Your task to perform on an android device: toggle priority inbox in the gmail app Image 0: 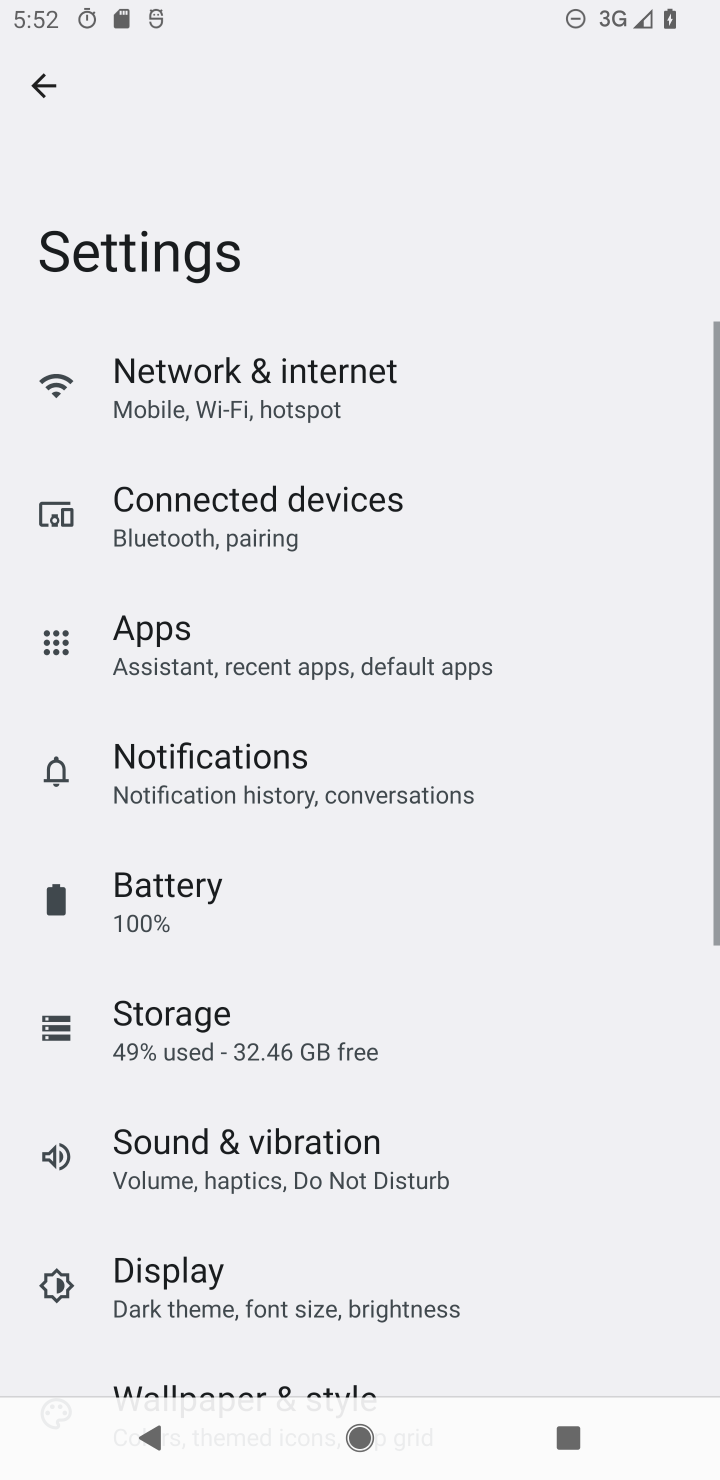
Step 0: press home button
Your task to perform on an android device: toggle priority inbox in the gmail app Image 1: 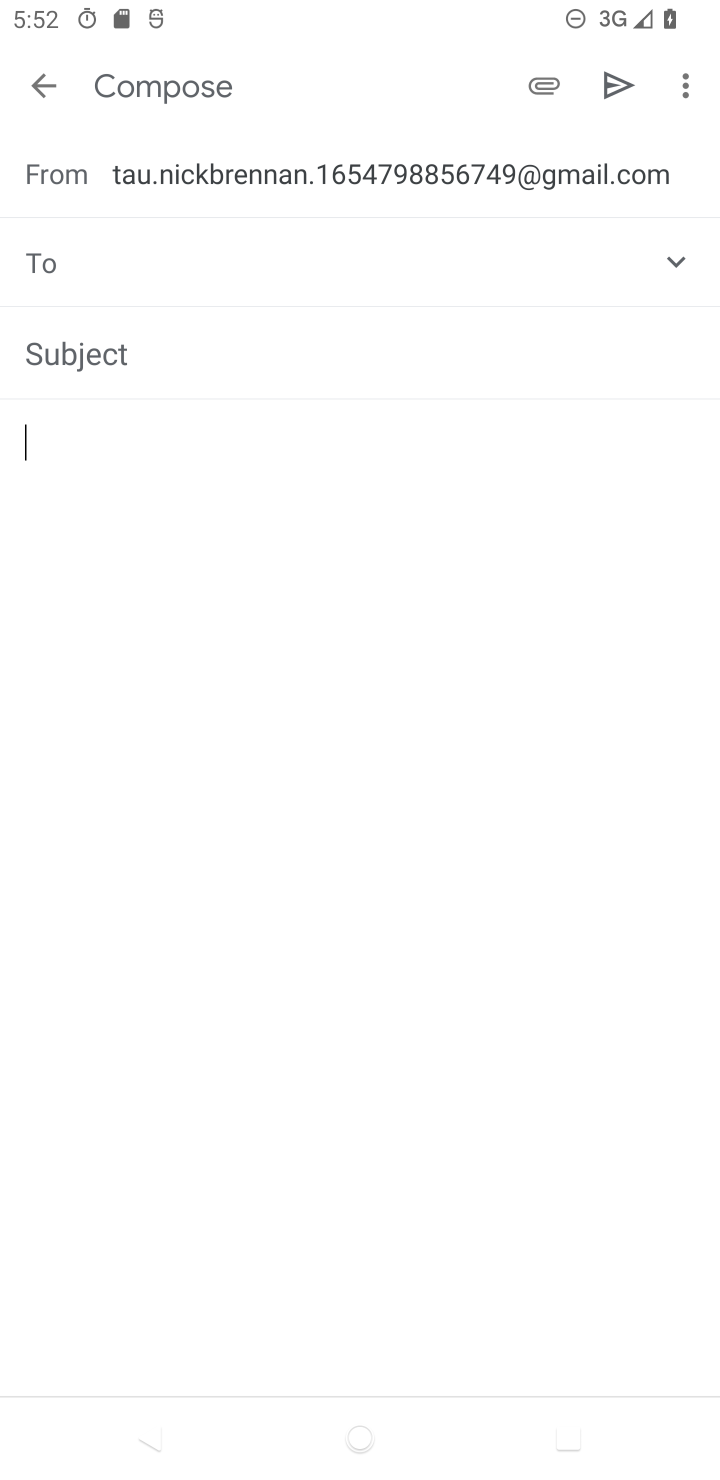
Step 1: click (570, 296)
Your task to perform on an android device: toggle priority inbox in the gmail app Image 2: 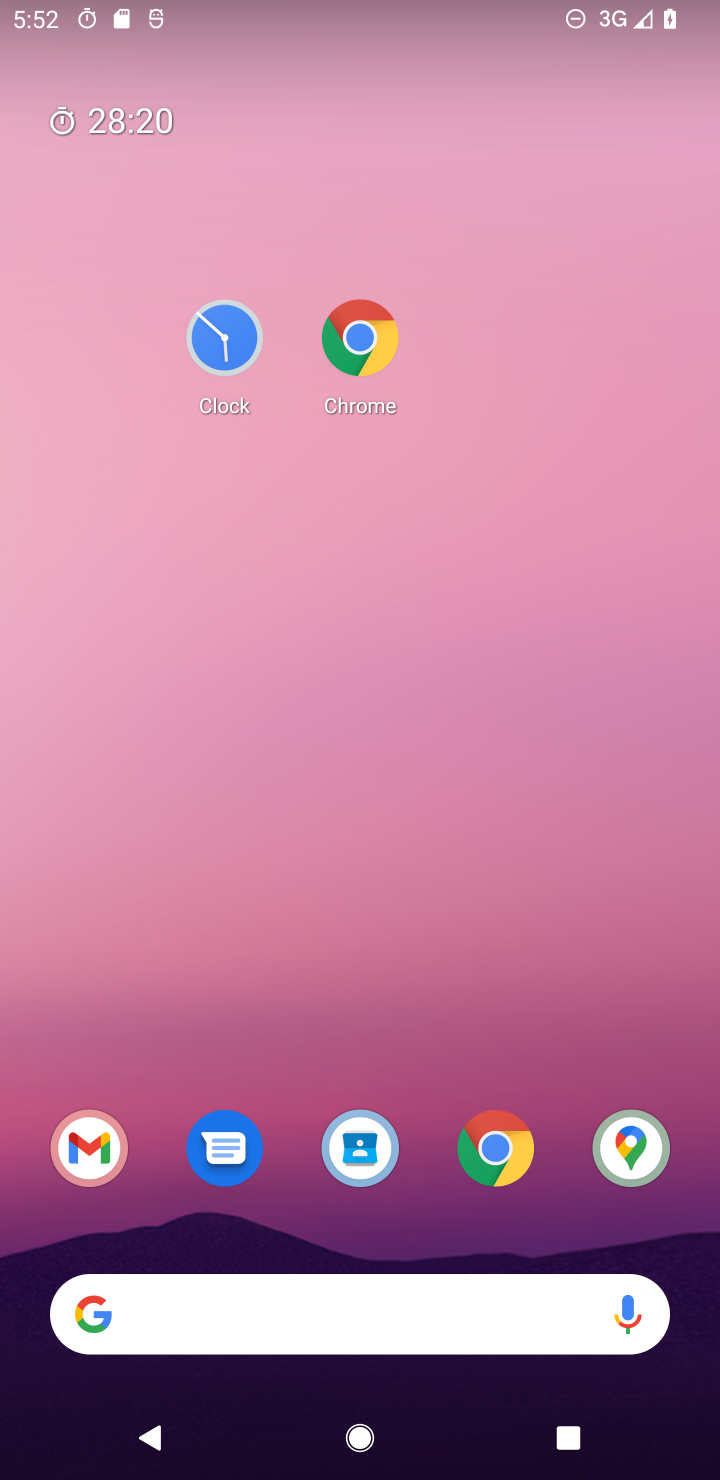
Step 2: drag from (424, 1108) to (709, 88)
Your task to perform on an android device: toggle priority inbox in the gmail app Image 3: 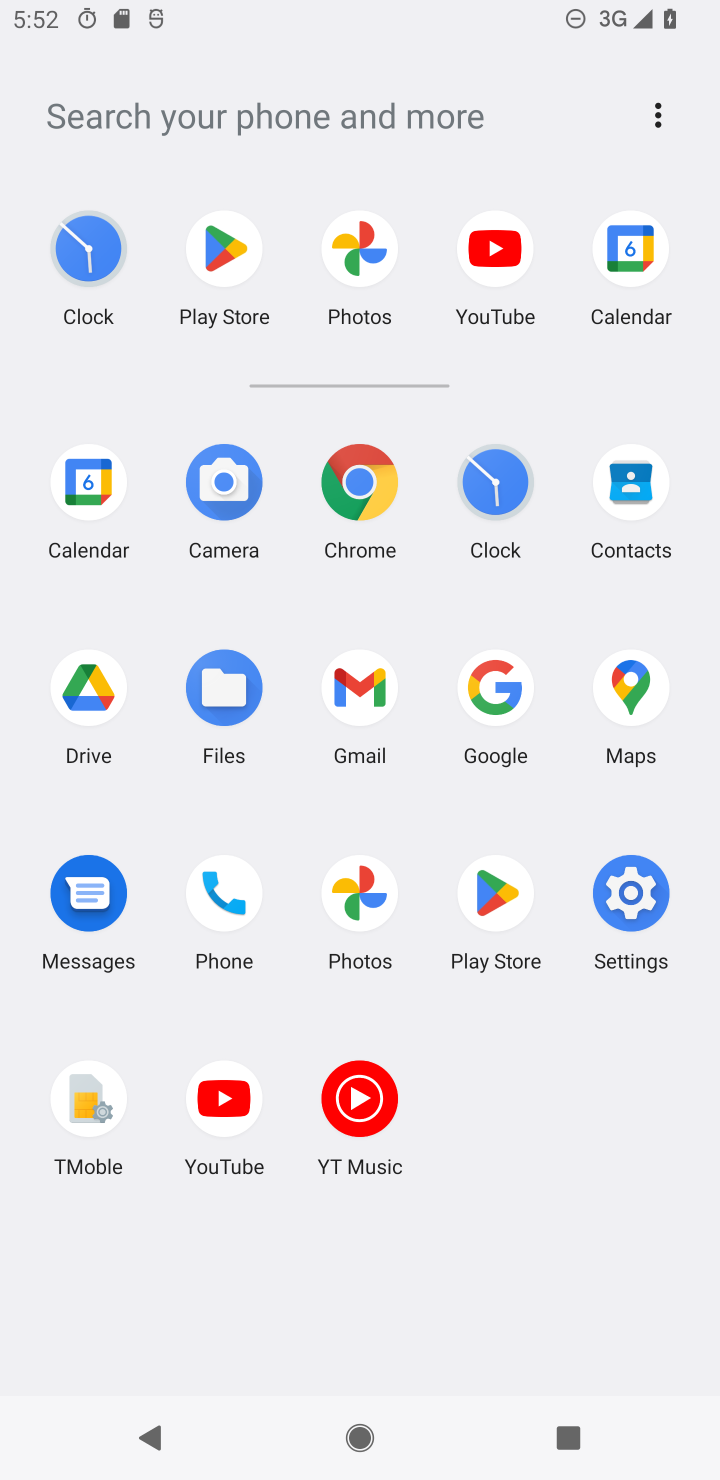
Step 3: click (366, 691)
Your task to perform on an android device: toggle priority inbox in the gmail app Image 4: 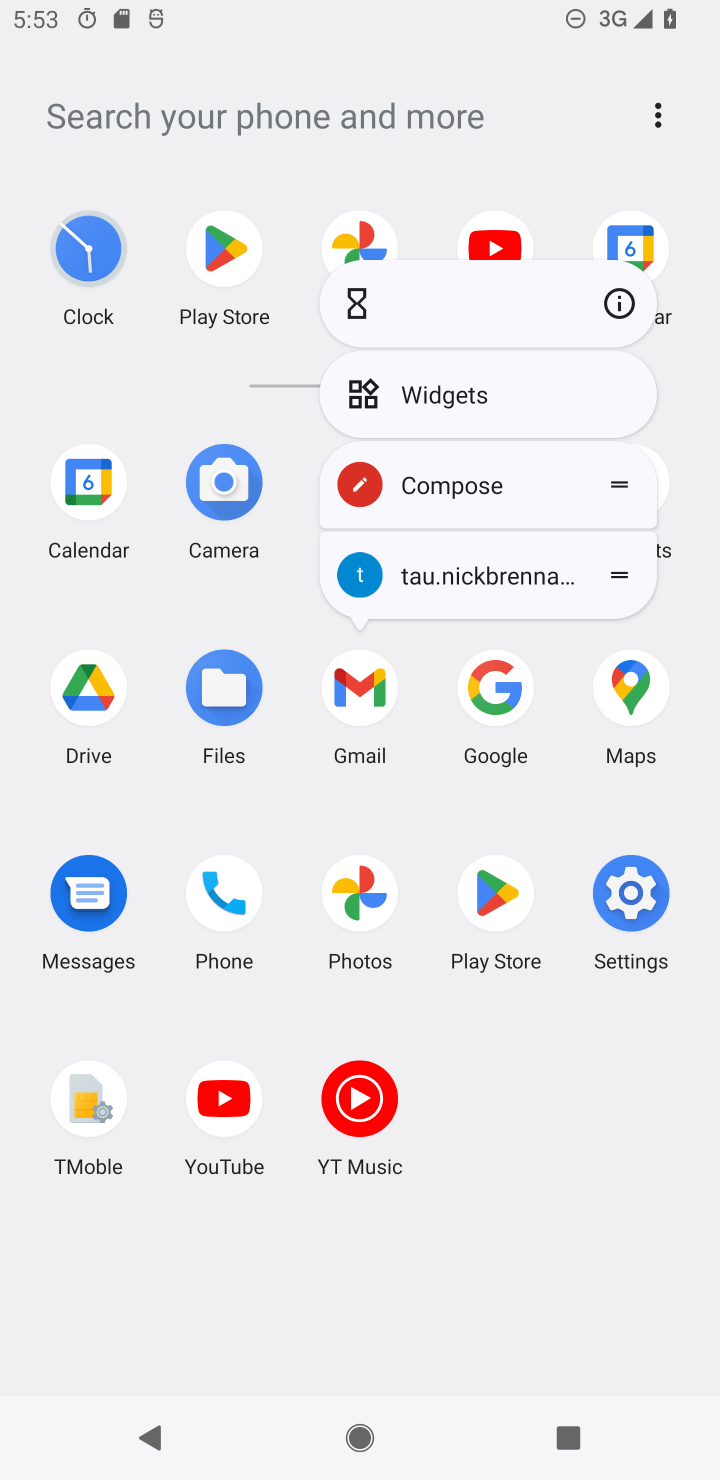
Step 4: click (620, 310)
Your task to perform on an android device: toggle priority inbox in the gmail app Image 5: 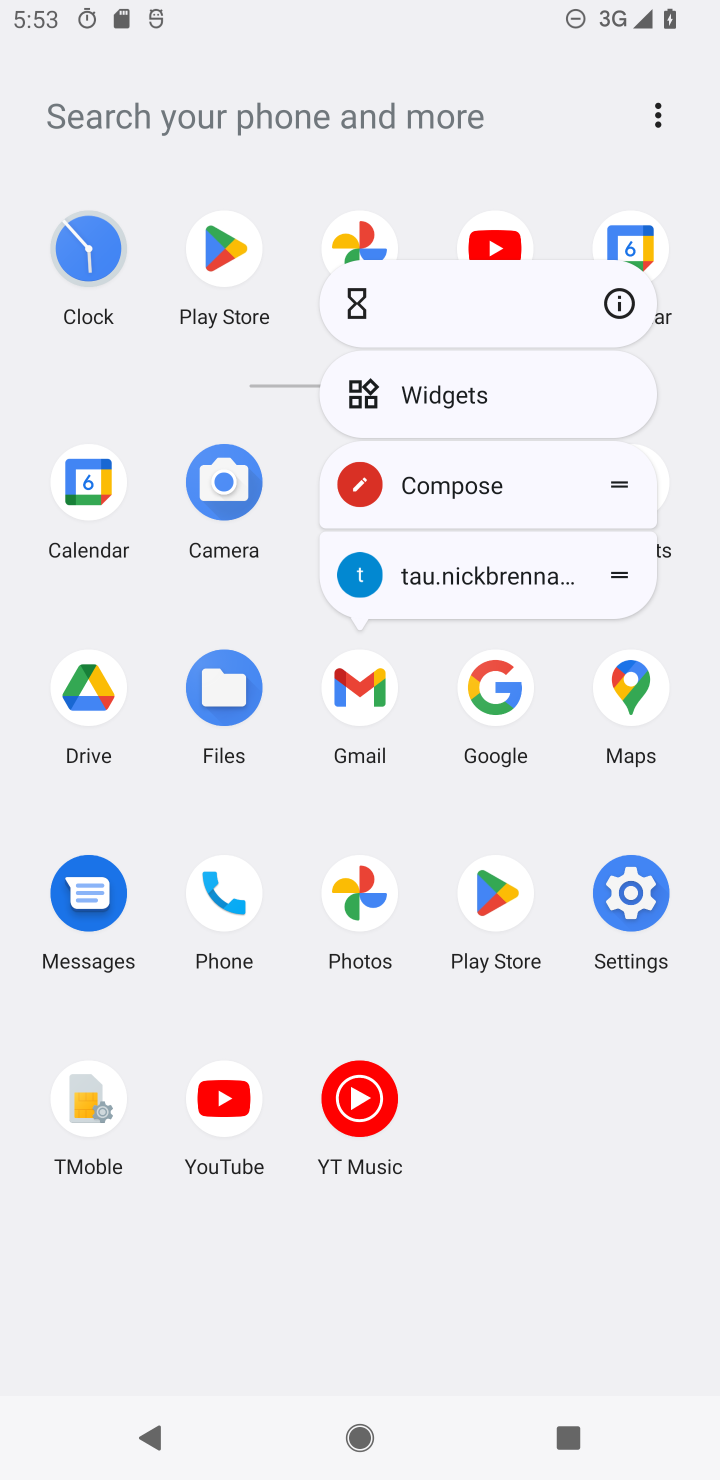
Step 5: click (611, 298)
Your task to perform on an android device: toggle priority inbox in the gmail app Image 6: 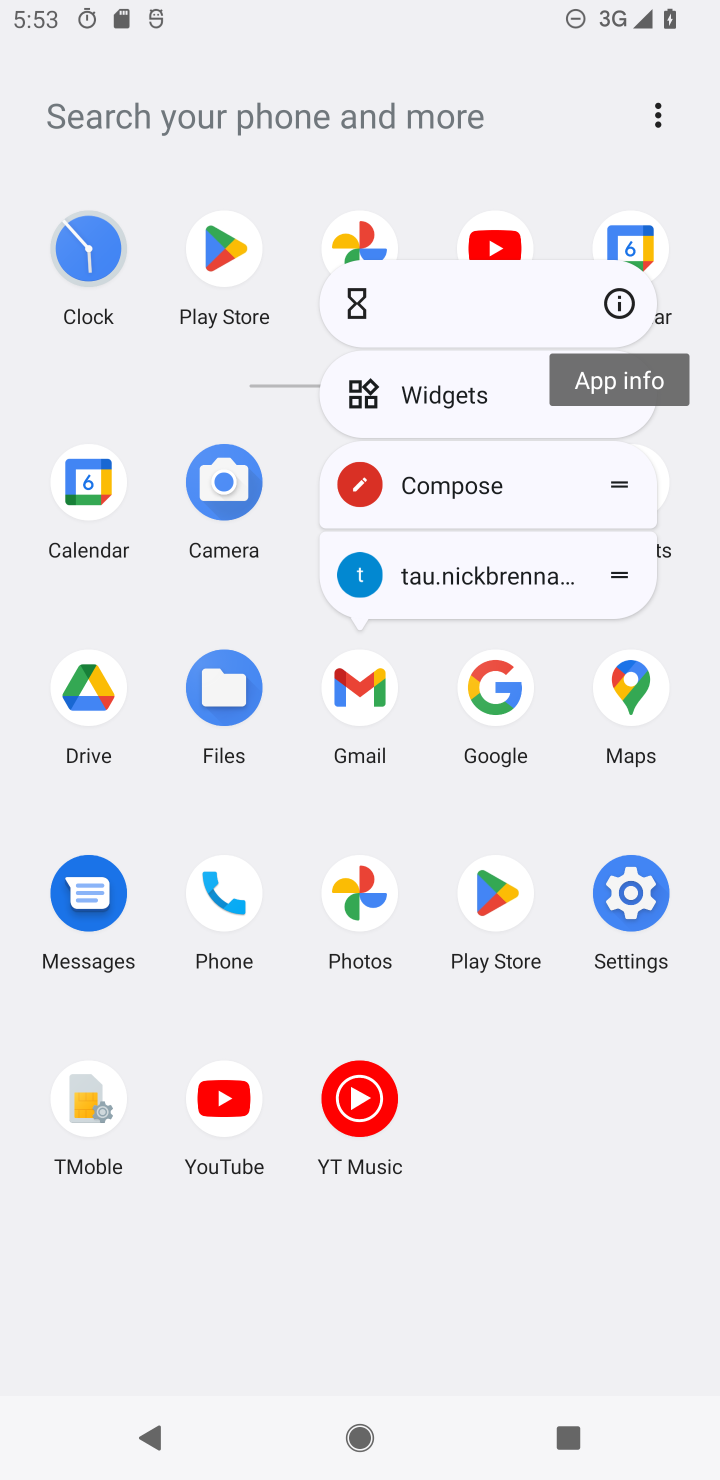
Step 6: click (615, 298)
Your task to perform on an android device: toggle priority inbox in the gmail app Image 7: 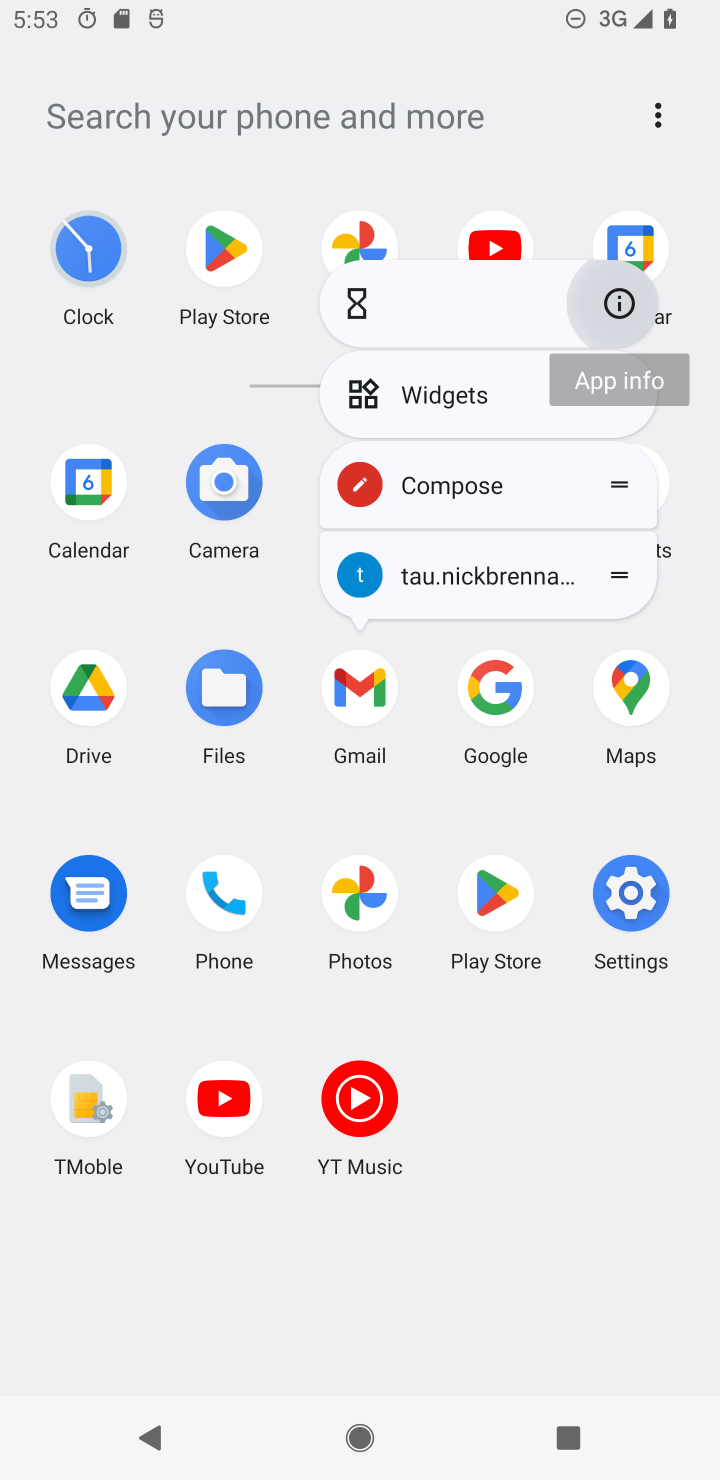
Step 7: click (357, 690)
Your task to perform on an android device: toggle priority inbox in the gmail app Image 8: 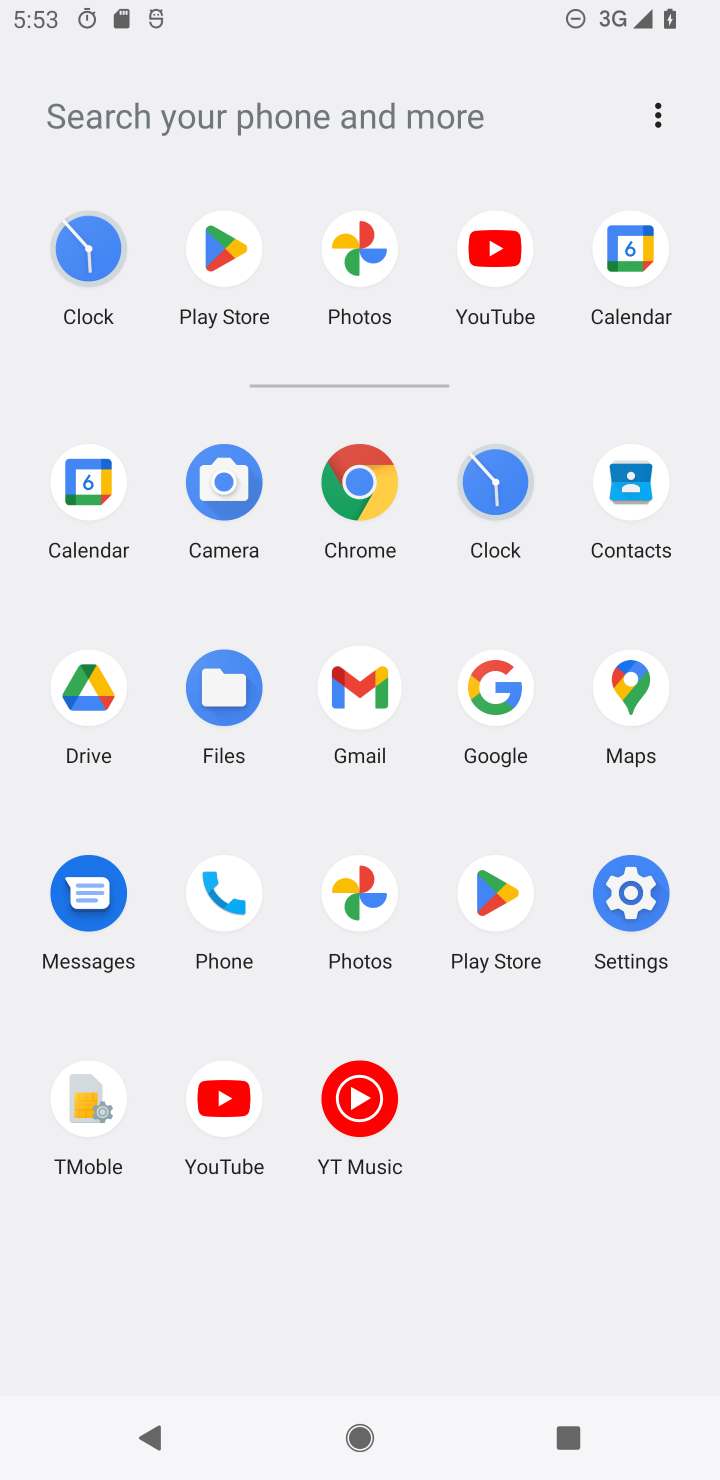
Step 8: click (355, 688)
Your task to perform on an android device: toggle priority inbox in the gmail app Image 9: 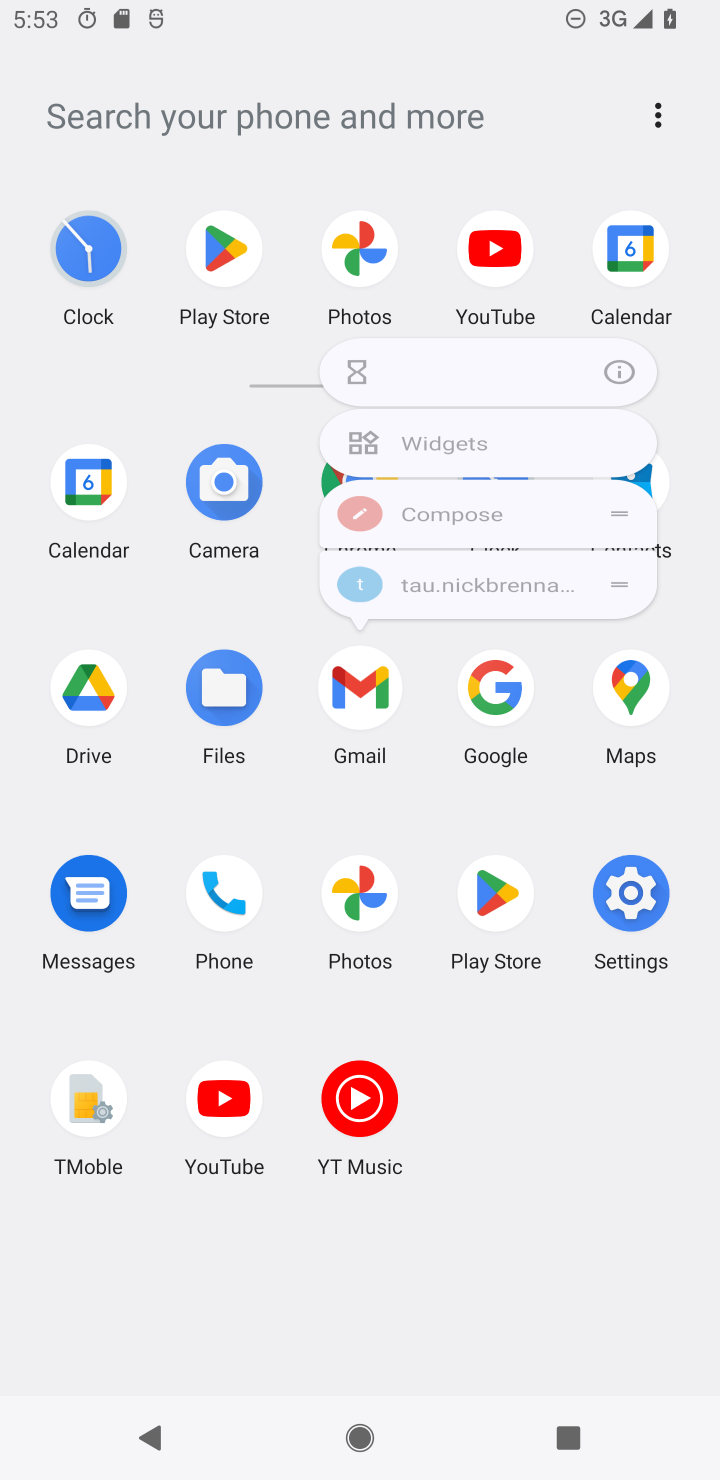
Step 9: click (352, 684)
Your task to perform on an android device: toggle priority inbox in the gmail app Image 10: 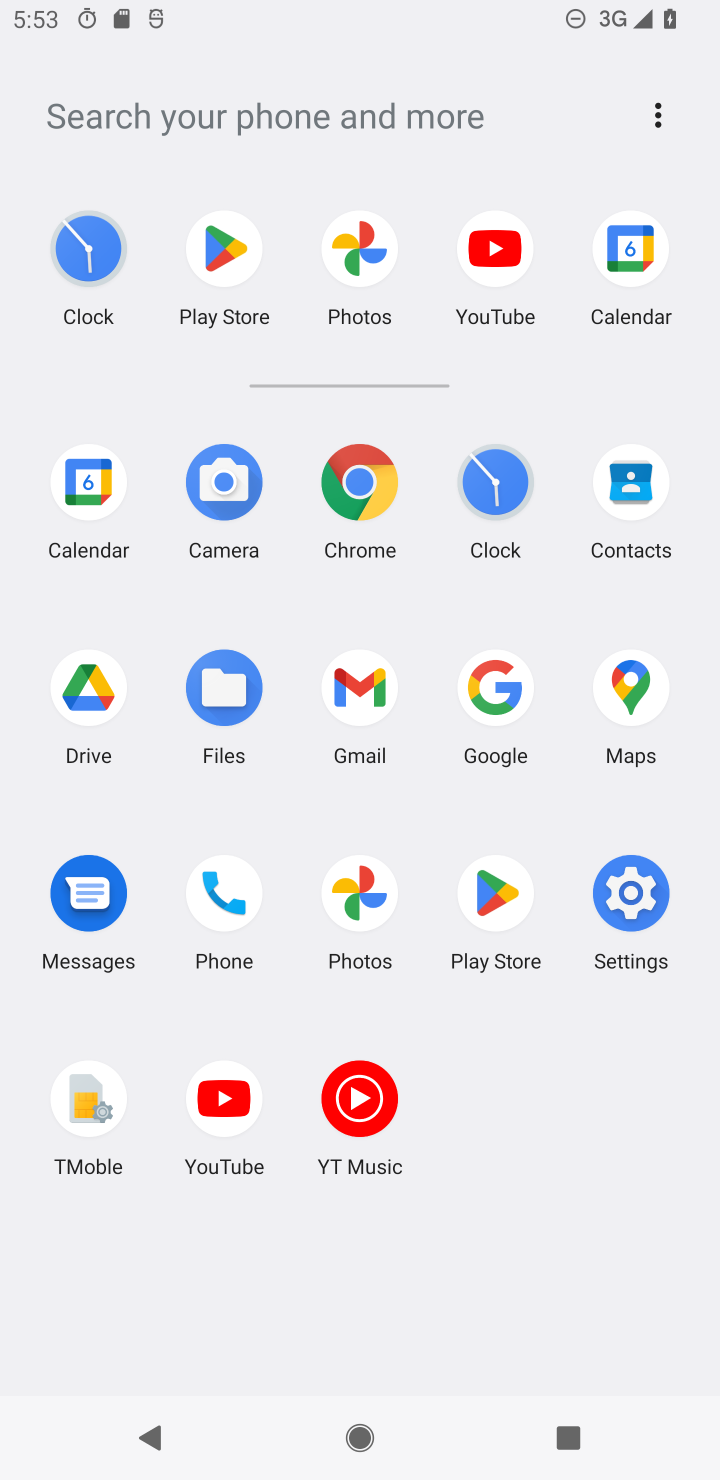
Step 10: click (352, 684)
Your task to perform on an android device: toggle priority inbox in the gmail app Image 11: 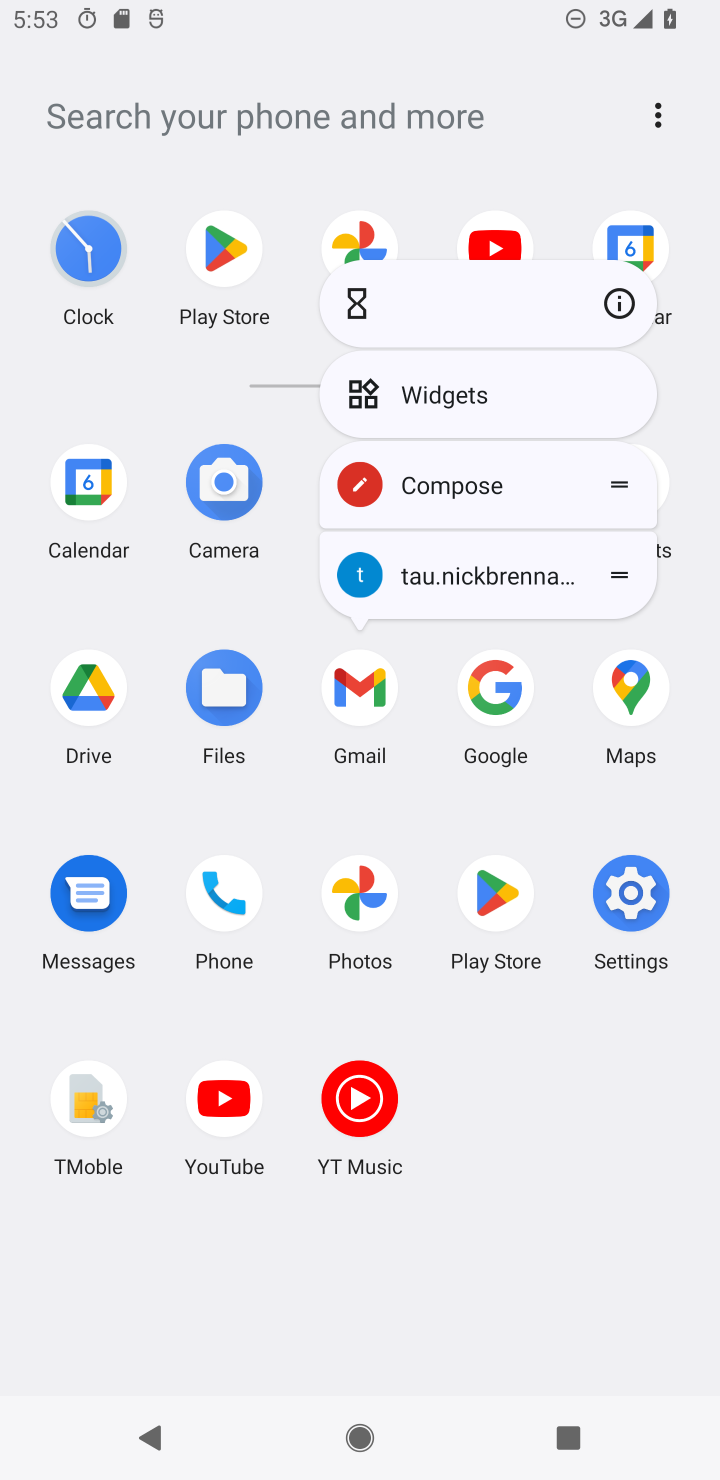
Step 11: click (355, 690)
Your task to perform on an android device: toggle priority inbox in the gmail app Image 12: 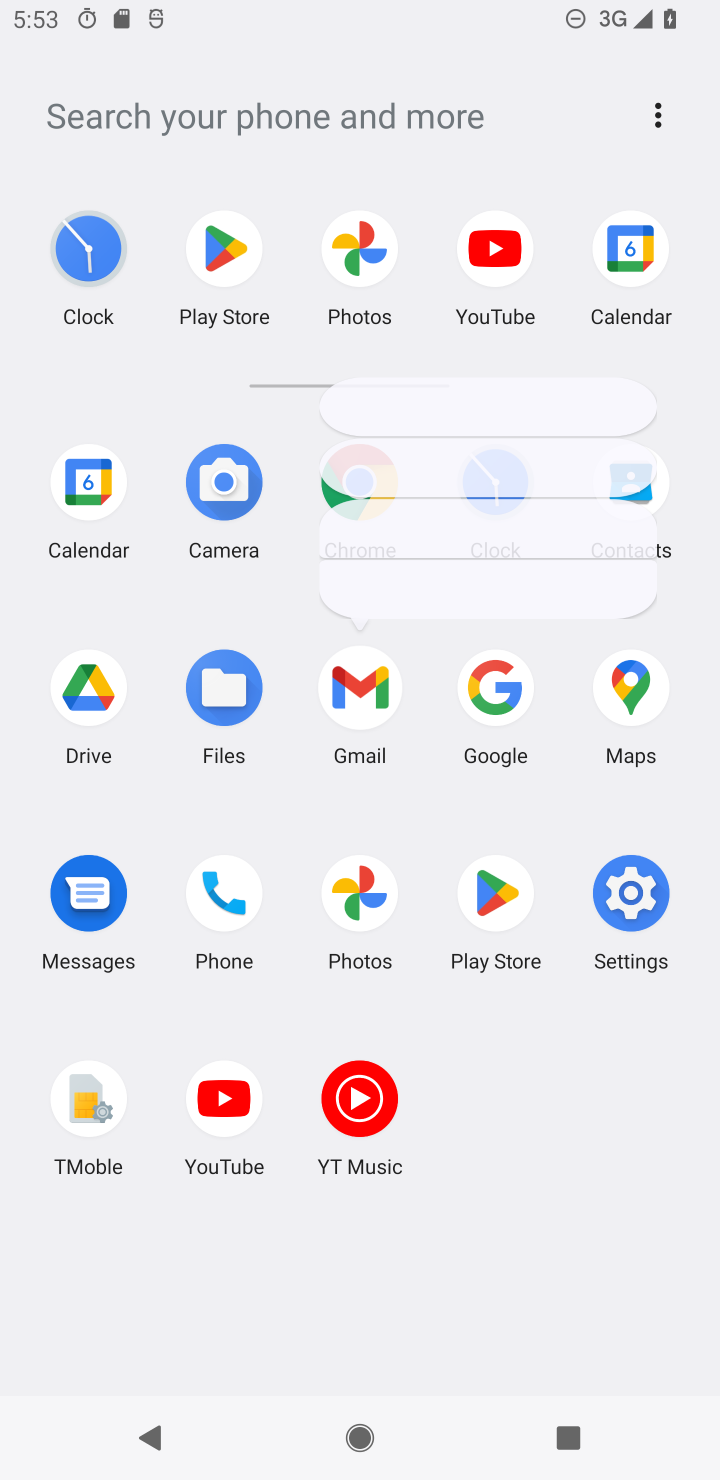
Step 12: click (362, 683)
Your task to perform on an android device: toggle priority inbox in the gmail app Image 13: 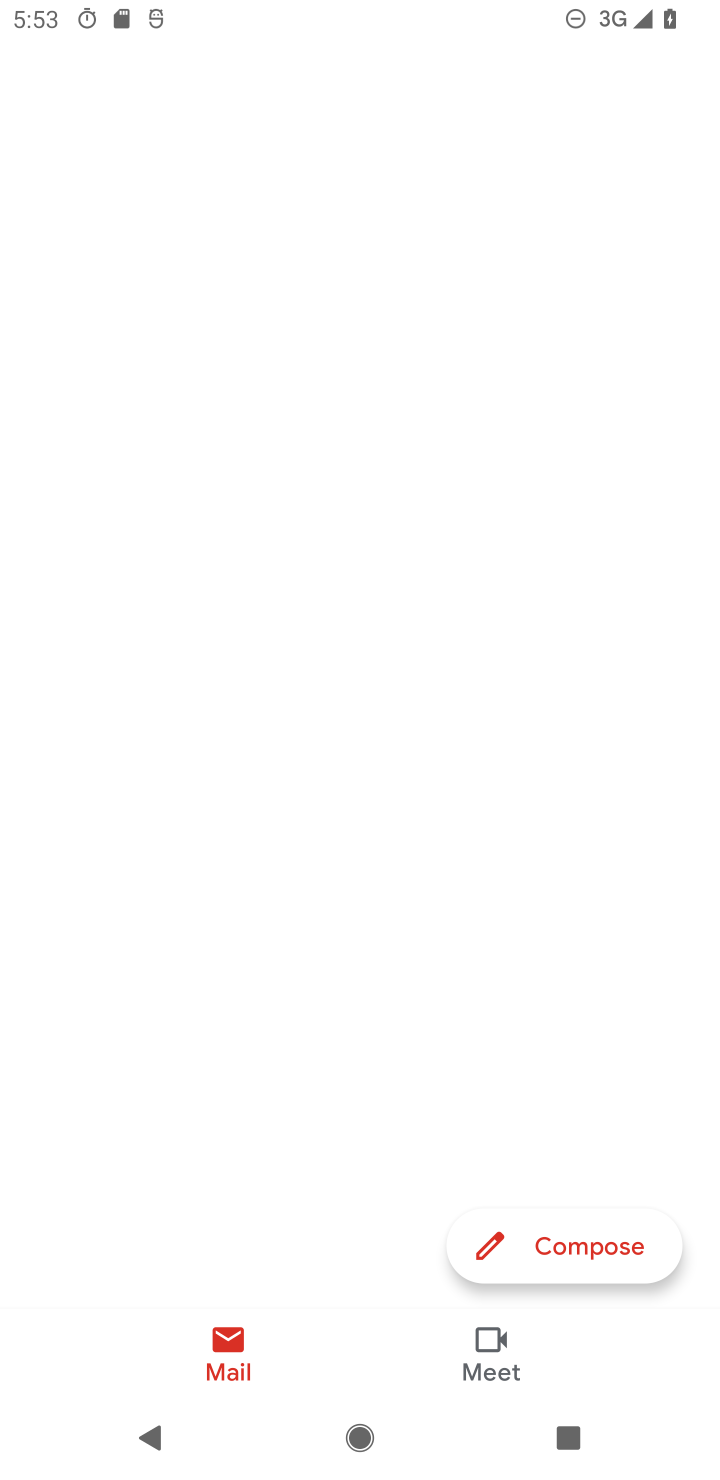
Step 13: click (358, 675)
Your task to perform on an android device: toggle priority inbox in the gmail app Image 14: 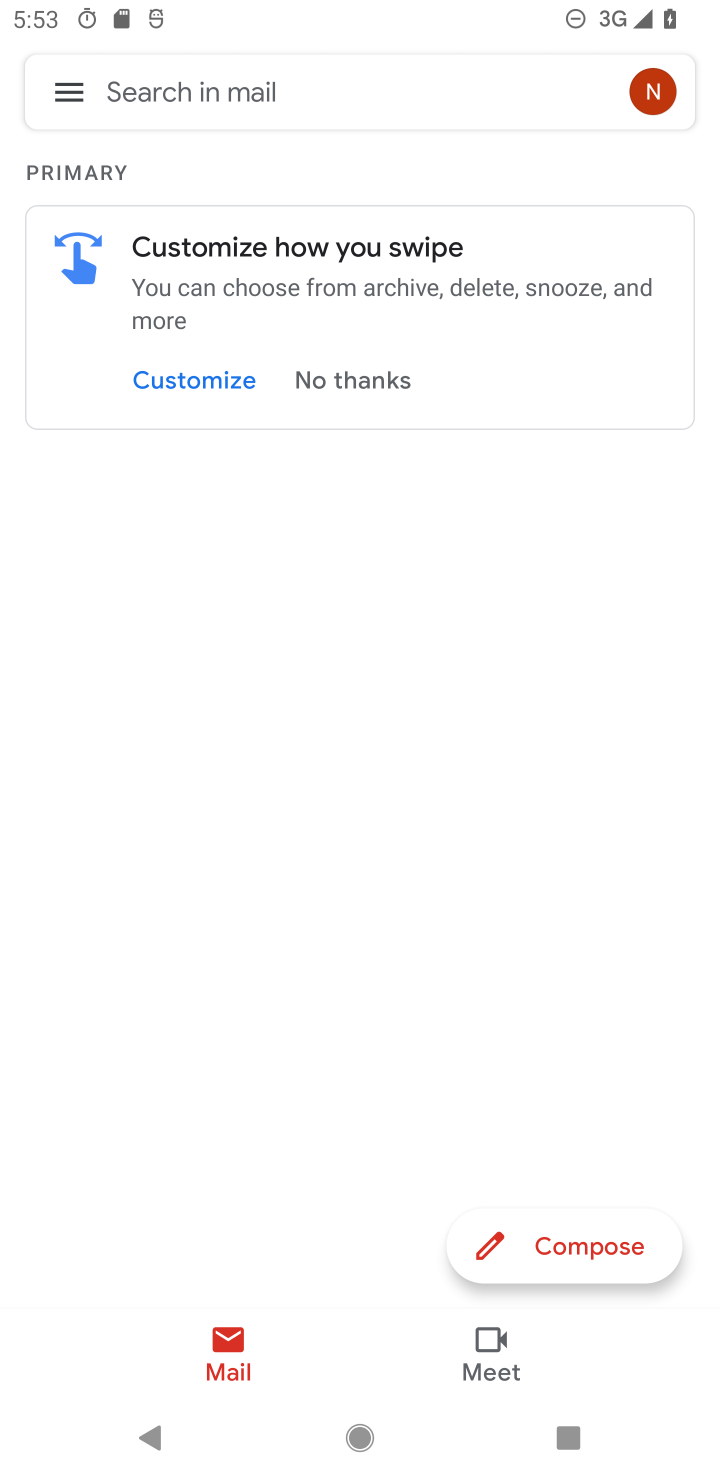
Step 14: drag from (443, 540) to (354, 1115)
Your task to perform on an android device: toggle priority inbox in the gmail app Image 15: 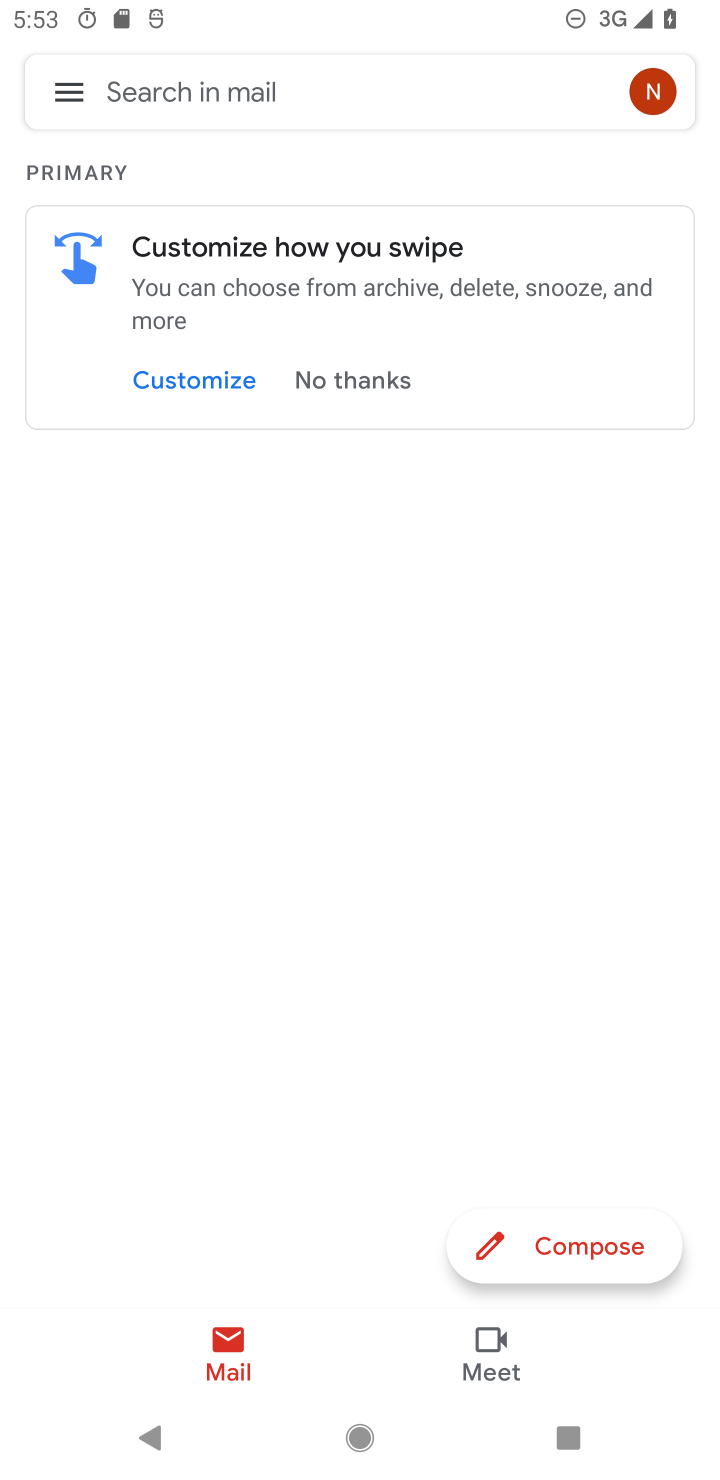
Step 15: click (75, 101)
Your task to perform on an android device: toggle priority inbox in the gmail app Image 16: 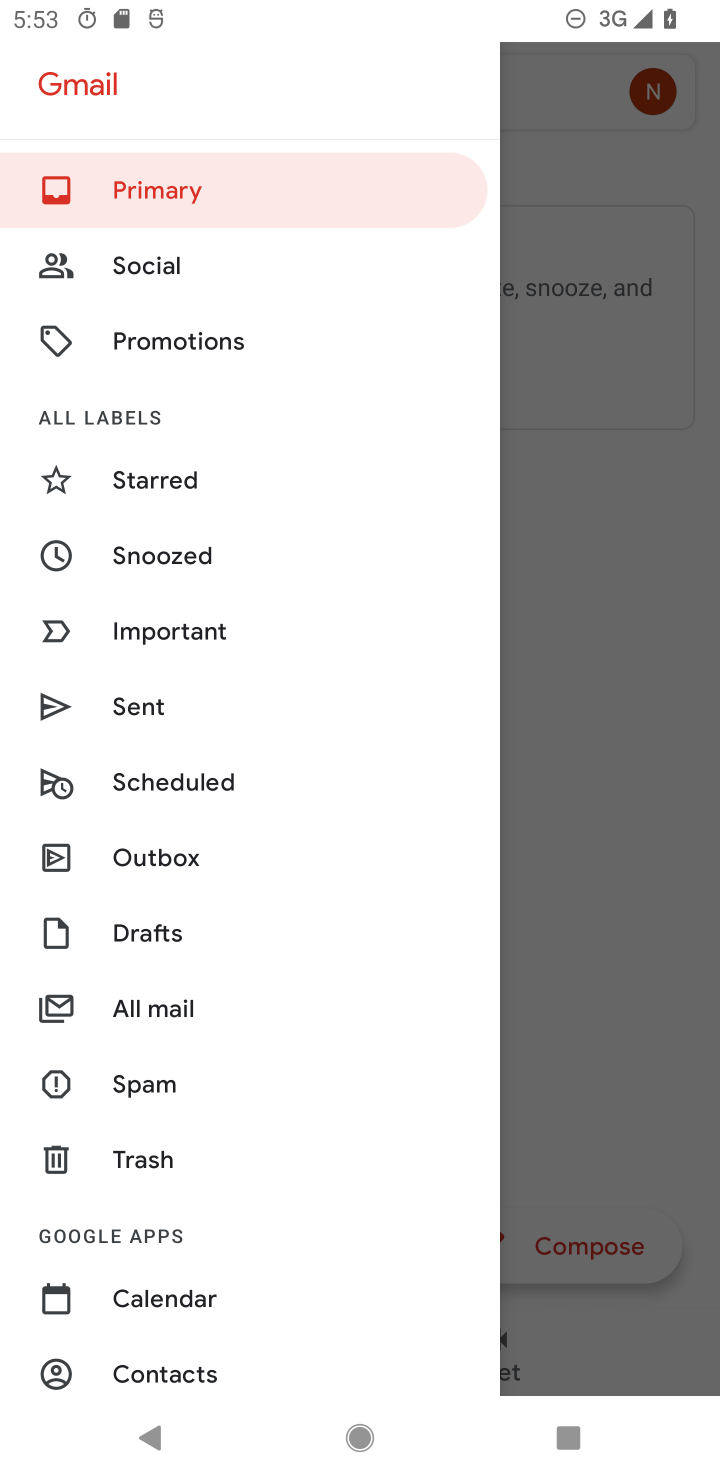
Step 16: drag from (150, 1226) to (228, 288)
Your task to perform on an android device: toggle priority inbox in the gmail app Image 17: 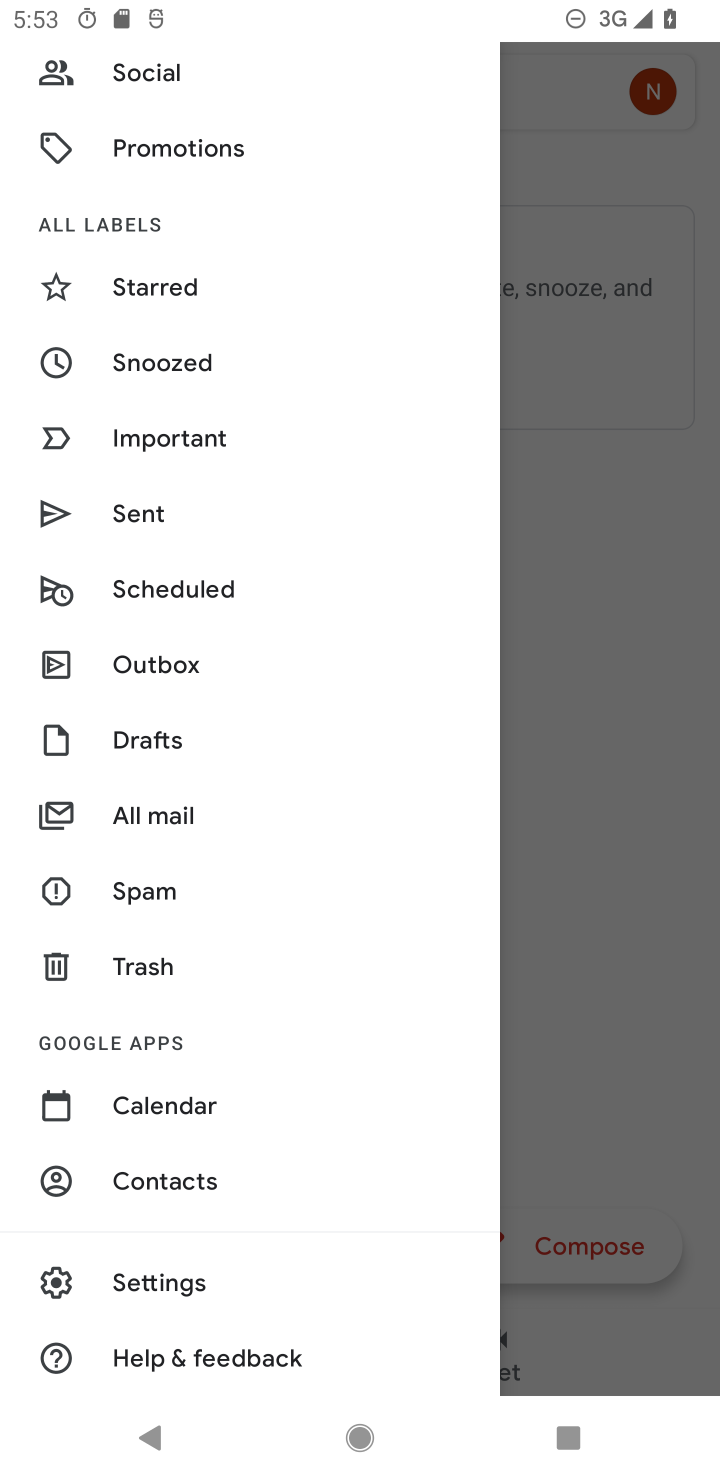
Step 17: click (178, 1290)
Your task to perform on an android device: toggle priority inbox in the gmail app Image 18: 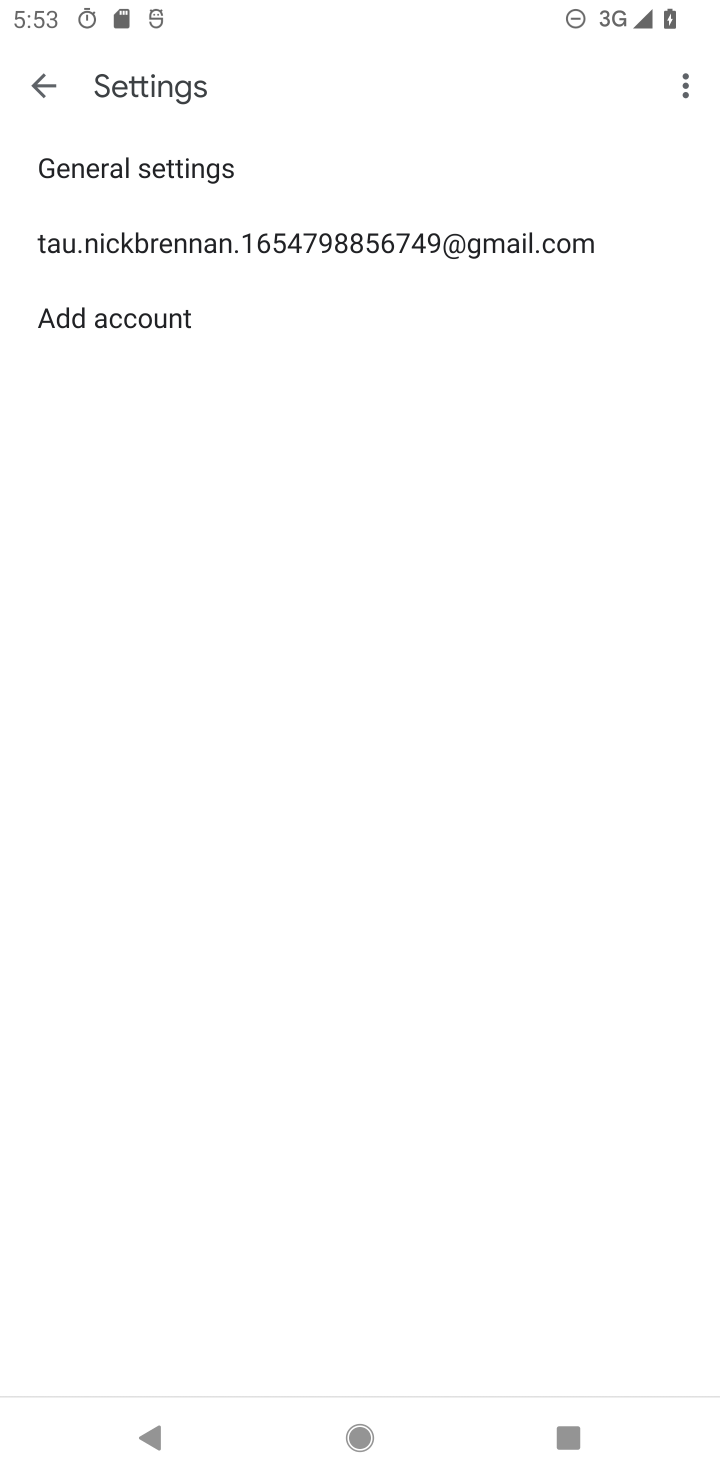
Step 18: click (356, 230)
Your task to perform on an android device: toggle priority inbox in the gmail app Image 19: 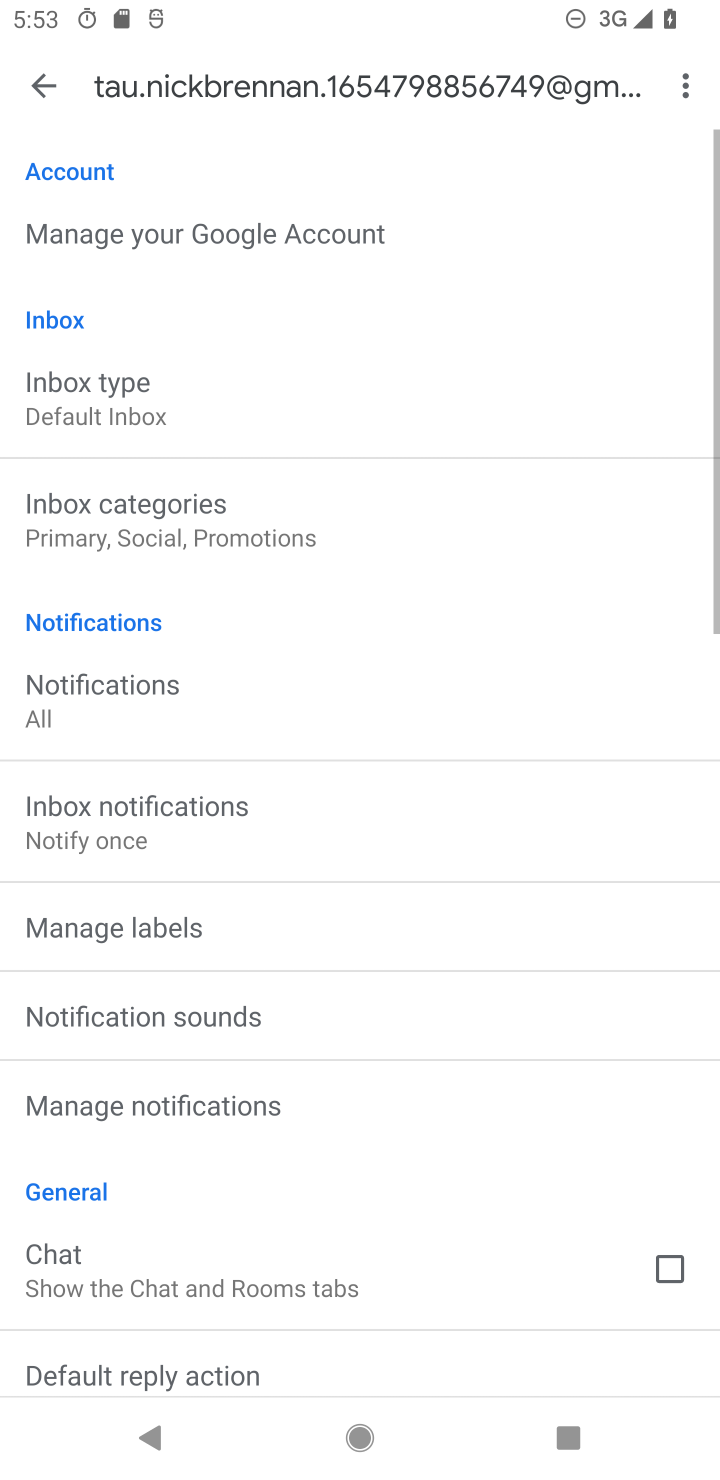
Step 19: drag from (342, 734) to (295, 152)
Your task to perform on an android device: toggle priority inbox in the gmail app Image 20: 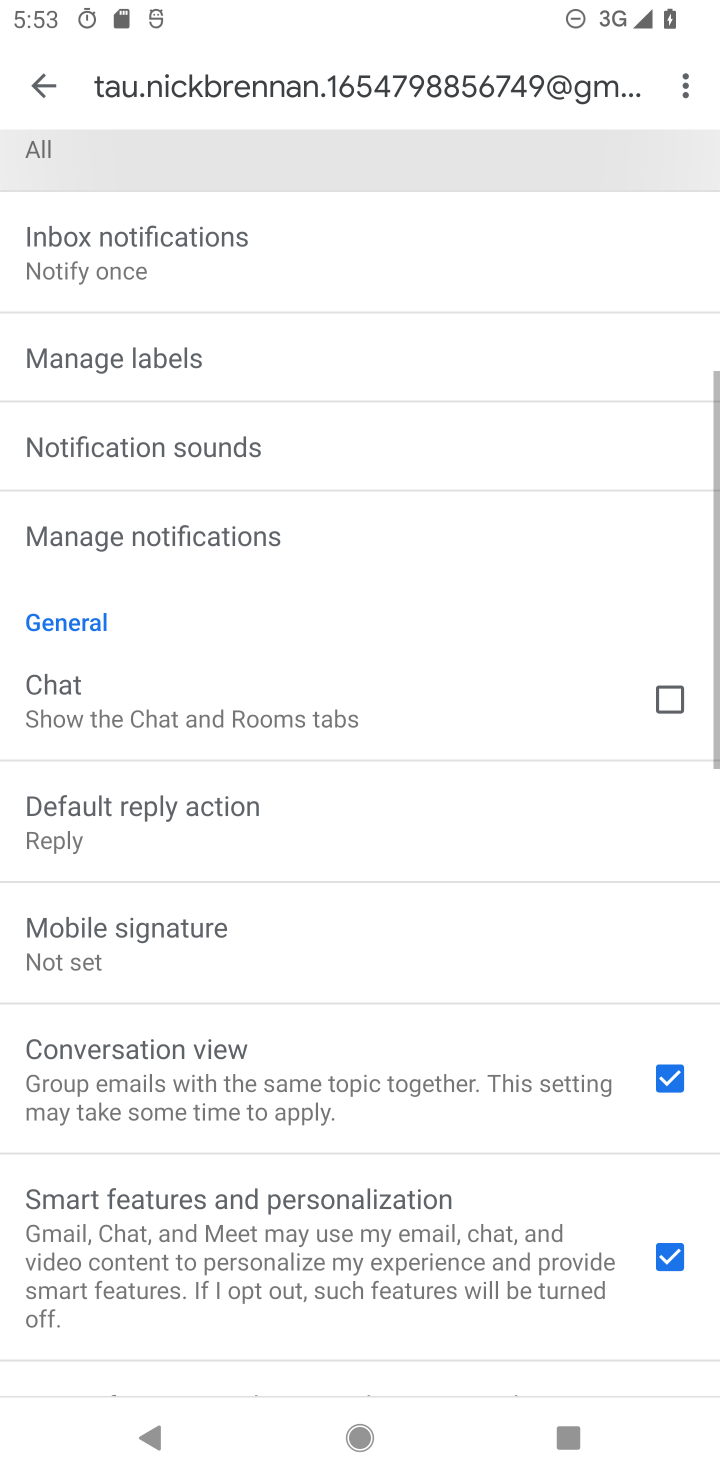
Step 20: drag from (208, 414) to (575, 1463)
Your task to perform on an android device: toggle priority inbox in the gmail app Image 21: 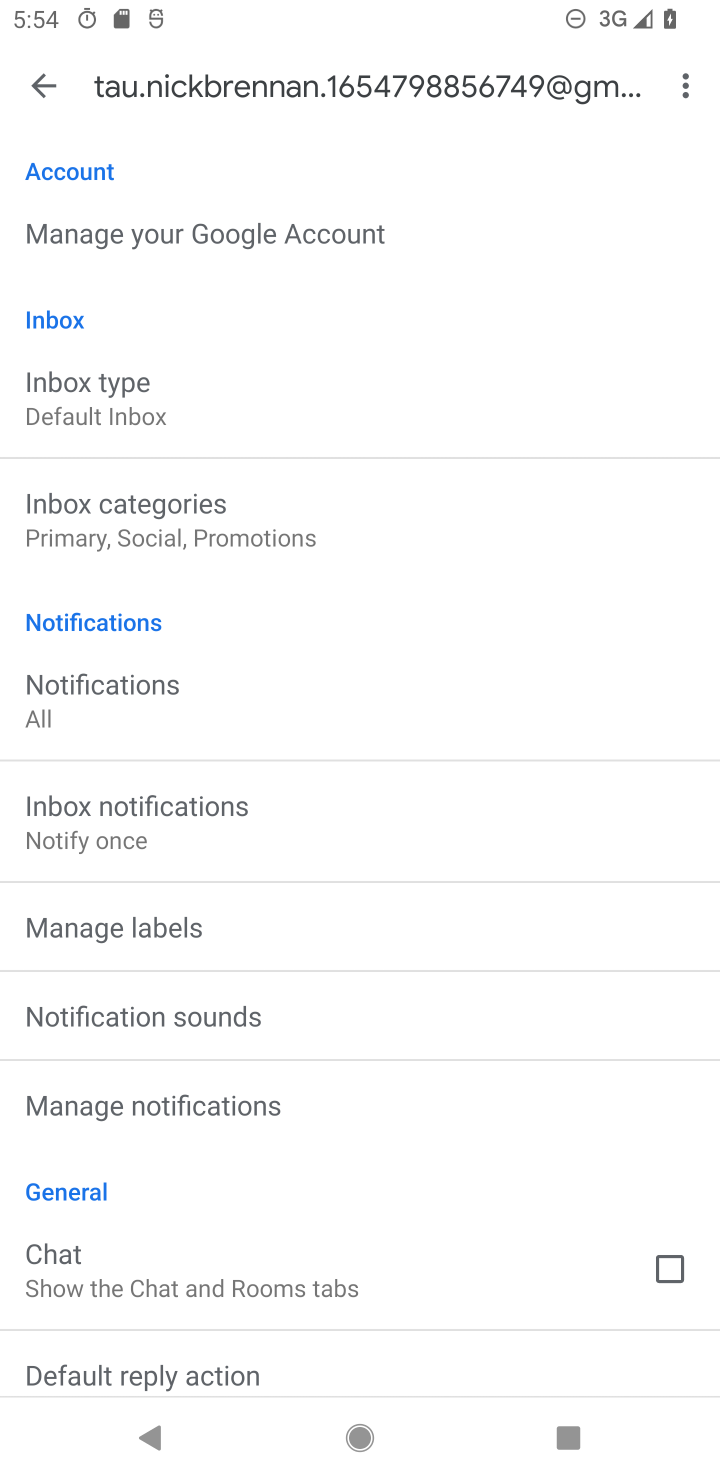
Step 21: click (190, 405)
Your task to perform on an android device: toggle priority inbox in the gmail app Image 22: 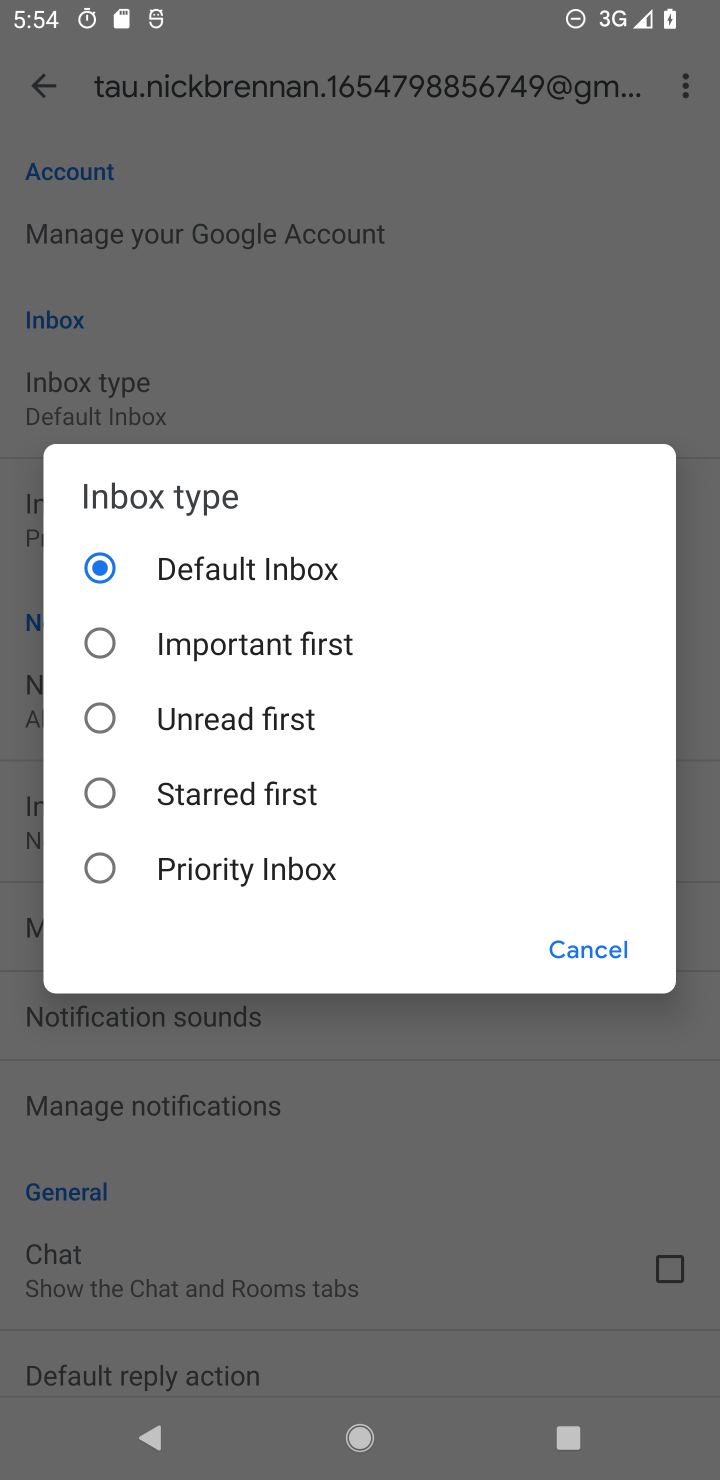
Step 22: click (126, 877)
Your task to perform on an android device: toggle priority inbox in the gmail app Image 23: 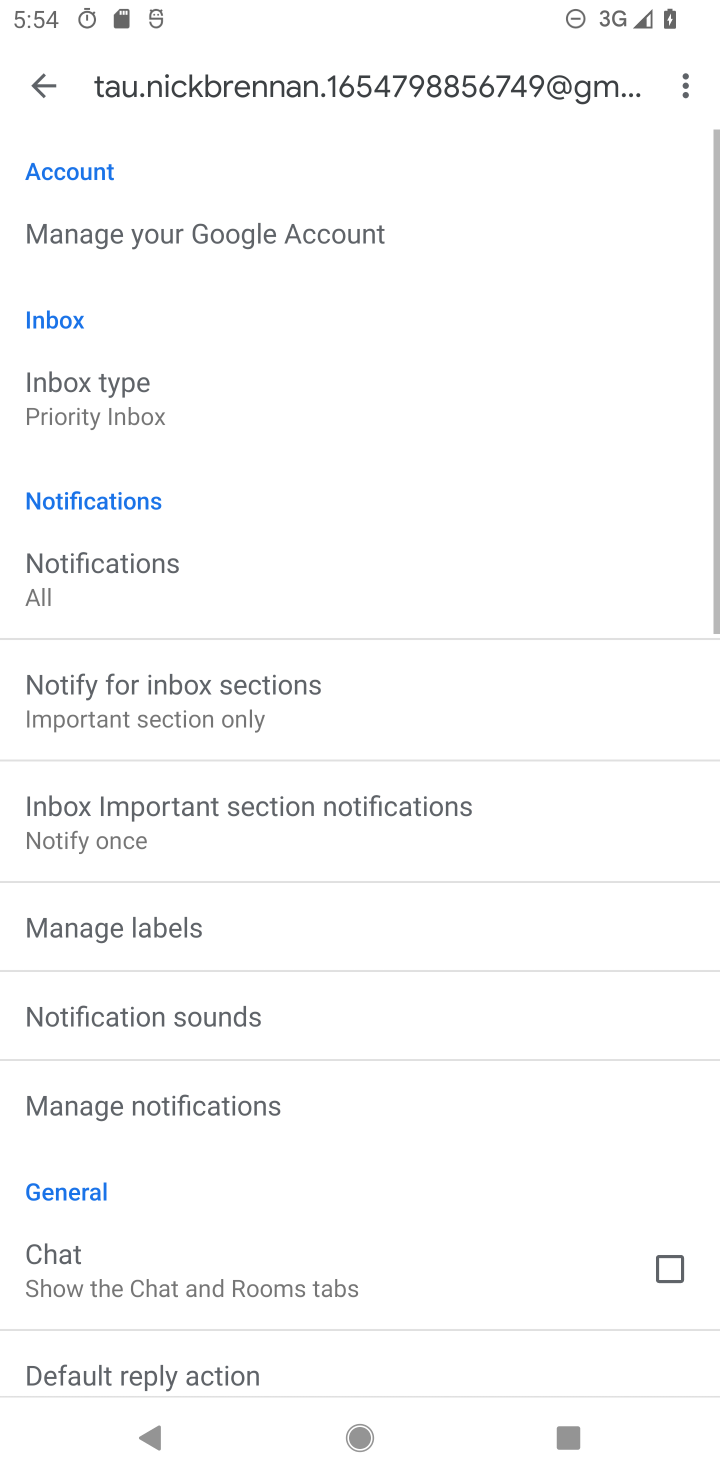
Step 23: task complete